Your task to perform on an android device: change the clock display to analog Image 0: 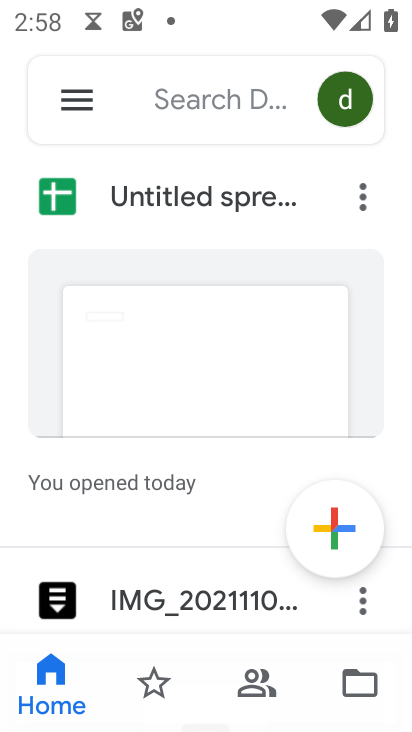
Step 0: press back button
Your task to perform on an android device: change the clock display to analog Image 1: 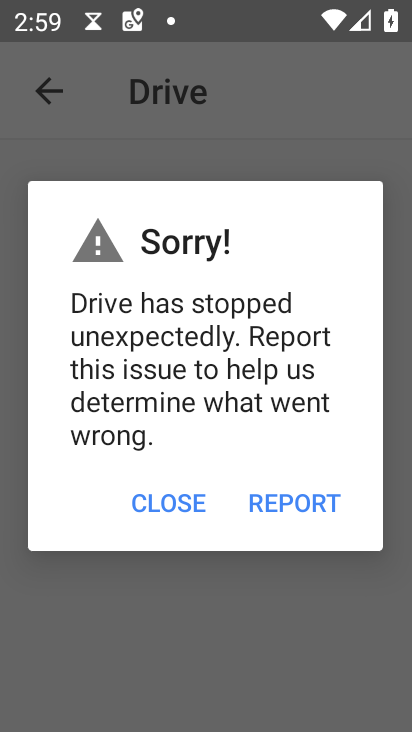
Step 1: click (170, 484)
Your task to perform on an android device: change the clock display to analog Image 2: 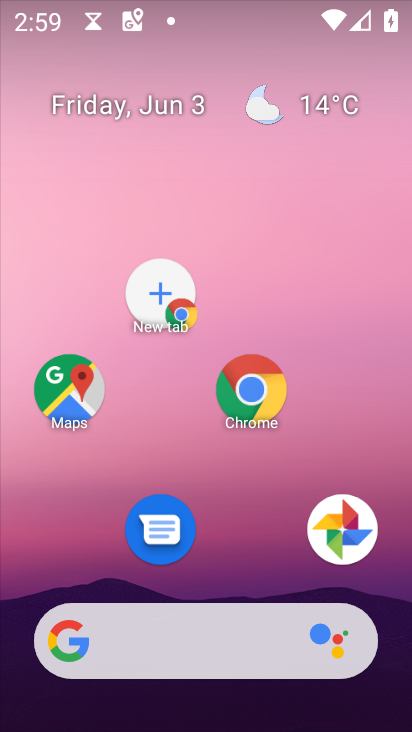
Step 2: drag from (208, 712) to (138, 249)
Your task to perform on an android device: change the clock display to analog Image 3: 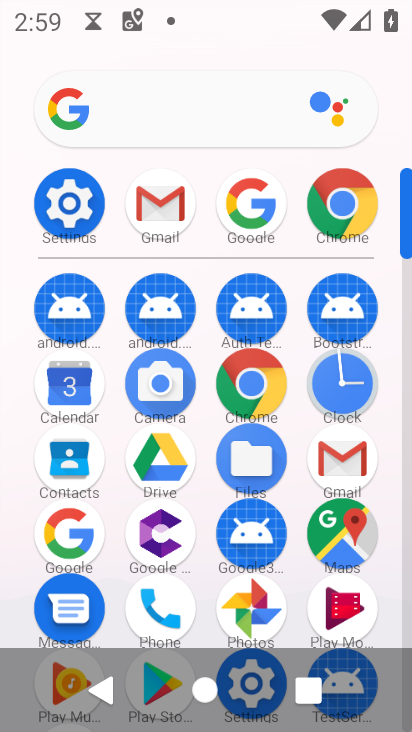
Step 3: drag from (245, 682) to (219, 306)
Your task to perform on an android device: change the clock display to analog Image 4: 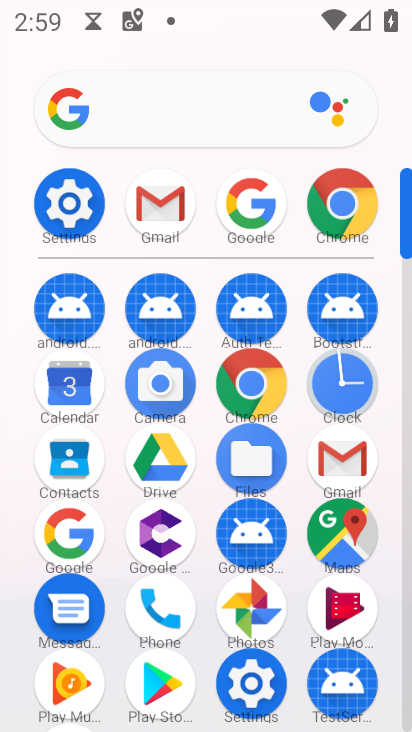
Step 4: click (336, 391)
Your task to perform on an android device: change the clock display to analog Image 5: 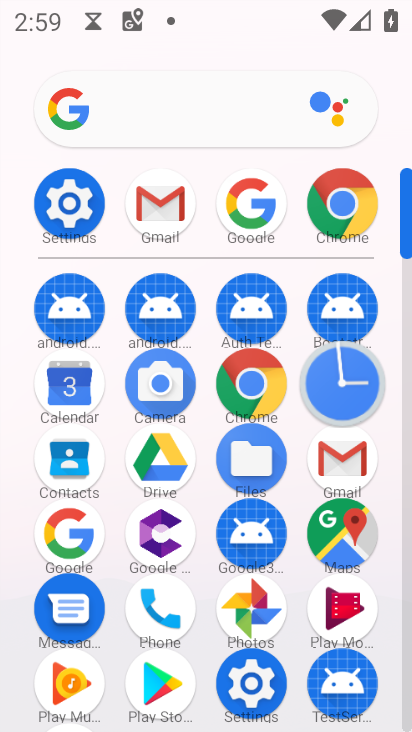
Step 5: click (335, 390)
Your task to perform on an android device: change the clock display to analog Image 6: 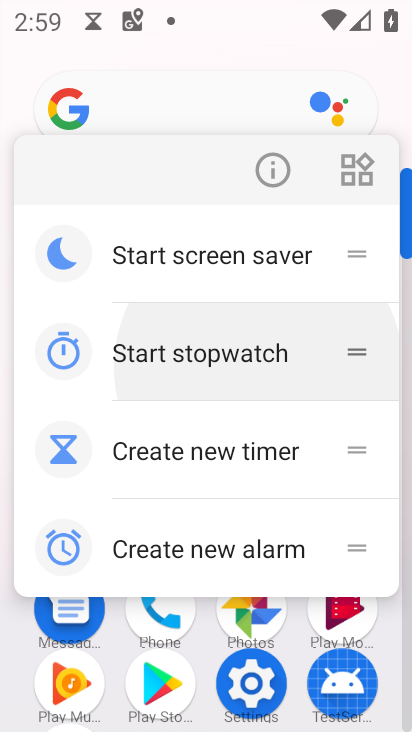
Step 6: click (336, 385)
Your task to perform on an android device: change the clock display to analog Image 7: 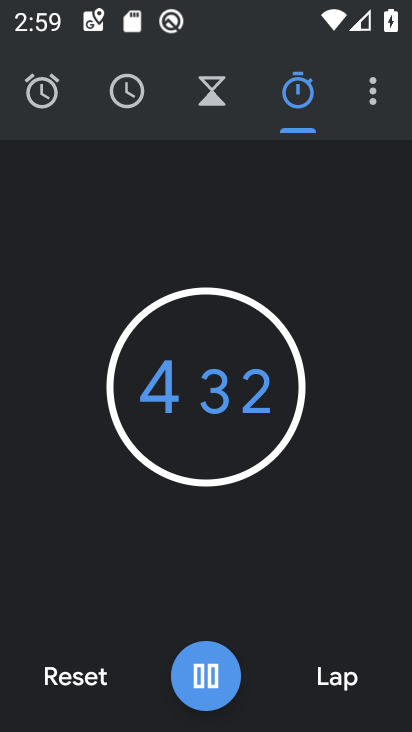
Step 7: click (195, 665)
Your task to perform on an android device: change the clock display to analog Image 8: 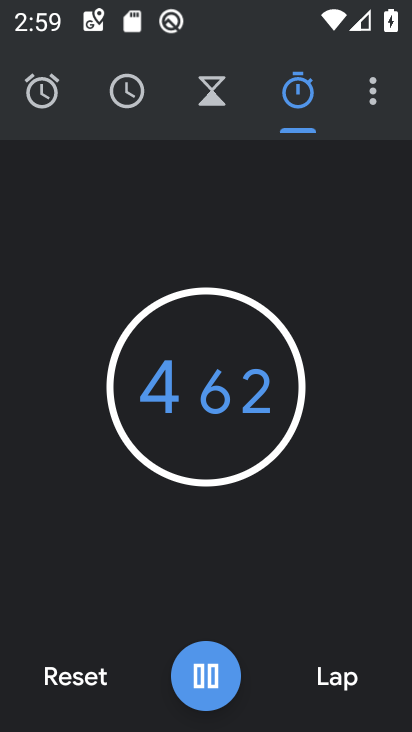
Step 8: click (202, 675)
Your task to perform on an android device: change the clock display to analog Image 9: 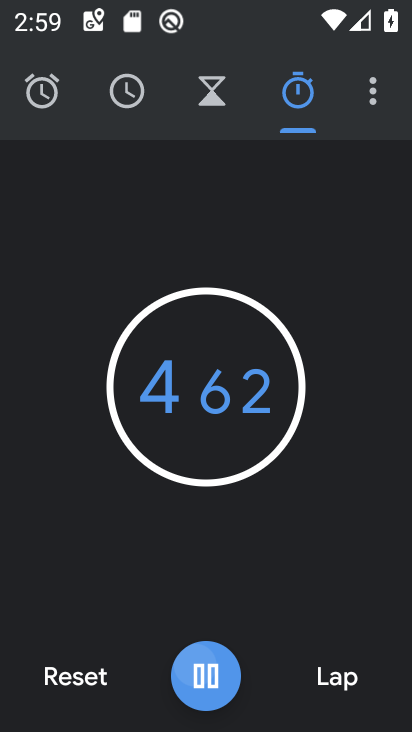
Step 9: click (203, 676)
Your task to perform on an android device: change the clock display to analog Image 10: 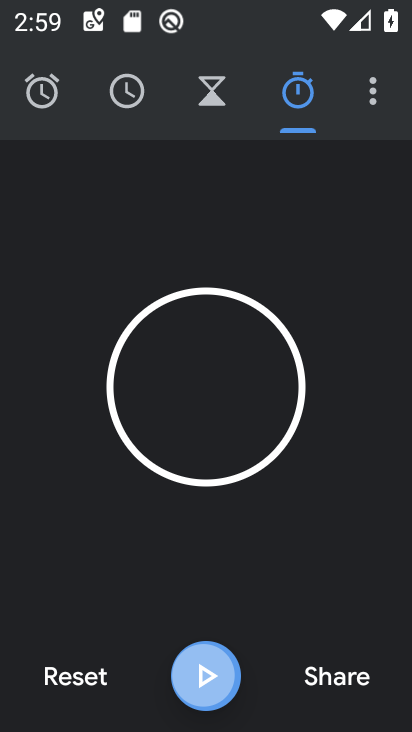
Step 10: click (203, 676)
Your task to perform on an android device: change the clock display to analog Image 11: 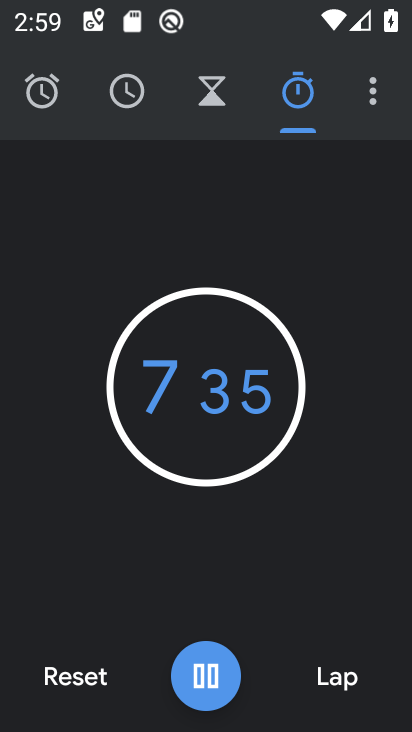
Step 11: click (199, 682)
Your task to perform on an android device: change the clock display to analog Image 12: 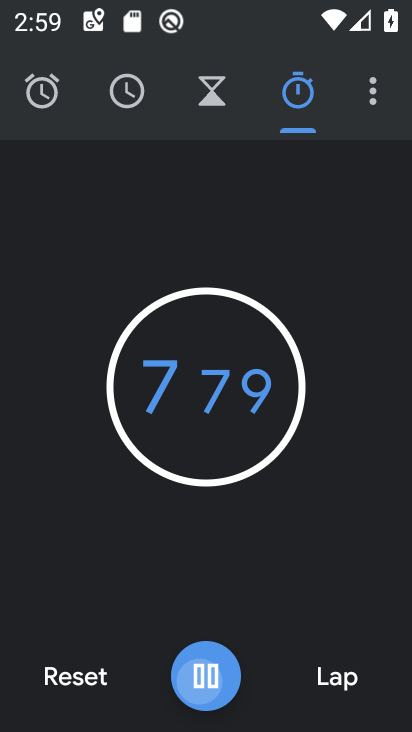
Step 12: click (201, 681)
Your task to perform on an android device: change the clock display to analog Image 13: 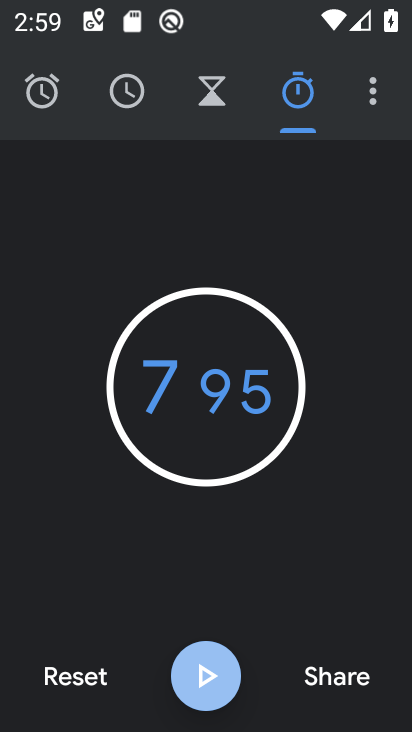
Step 13: click (199, 679)
Your task to perform on an android device: change the clock display to analog Image 14: 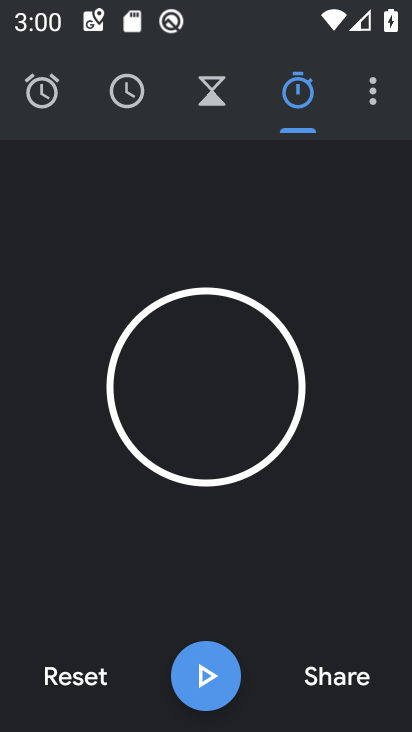
Step 14: click (370, 91)
Your task to perform on an android device: change the clock display to analog Image 15: 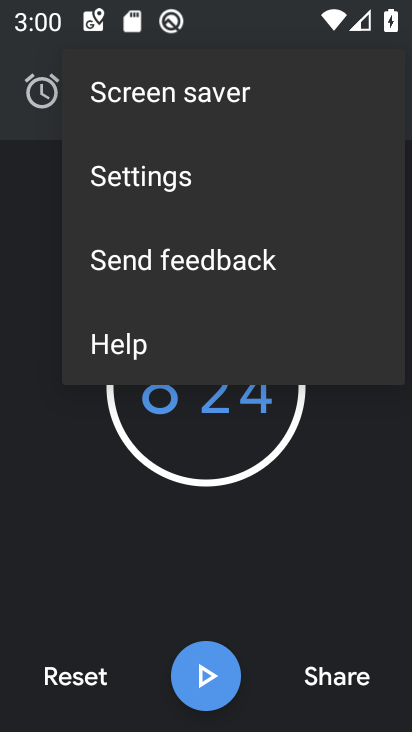
Step 15: click (143, 174)
Your task to perform on an android device: change the clock display to analog Image 16: 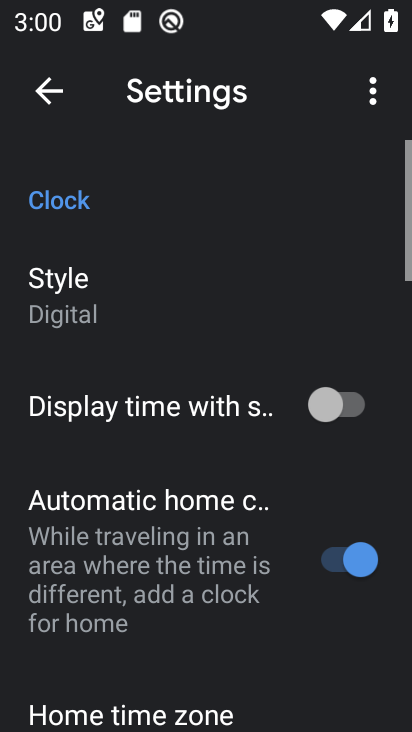
Step 16: click (132, 275)
Your task to perform on an android device: change the clock display to analog Image 17: 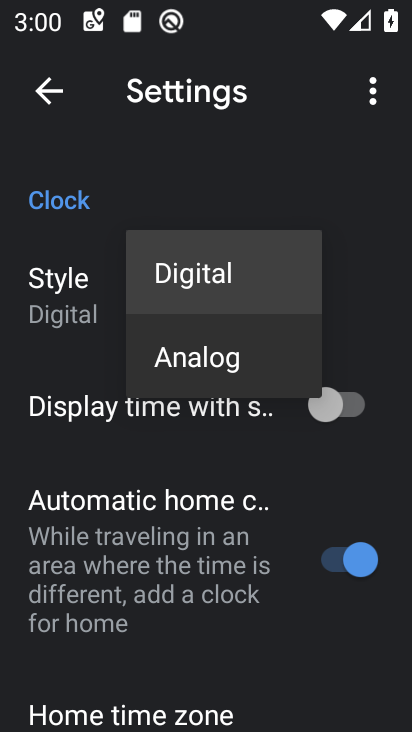
Step 17: click (190, 360)
Your task to perform on an android device: change the clock display to analog Image 18: 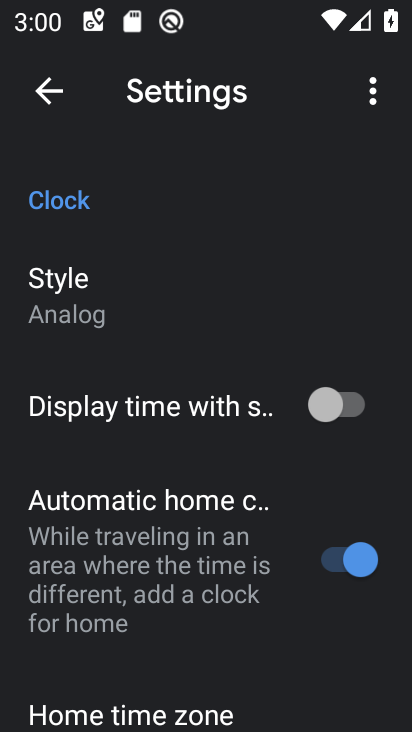
Step 18: task complete